Your task to perform on an android device: clear all cookies in the chrome app Image 0: 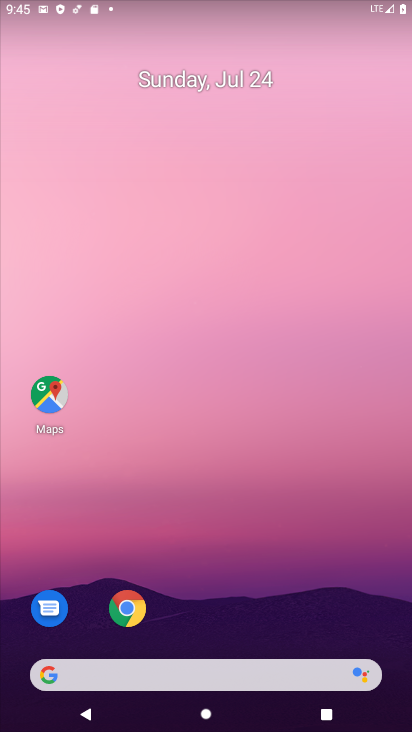
Step 0: click (126, 603)
Your task to perform on an android device: clear all cookies in the chrome app Image 1: 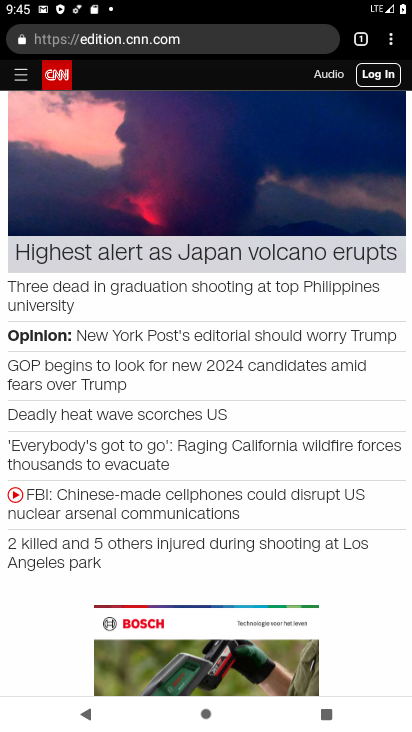
Step 1: click (390, 46)
Your task to perform on an android device: clear all cookies in the chrome app Image 2: 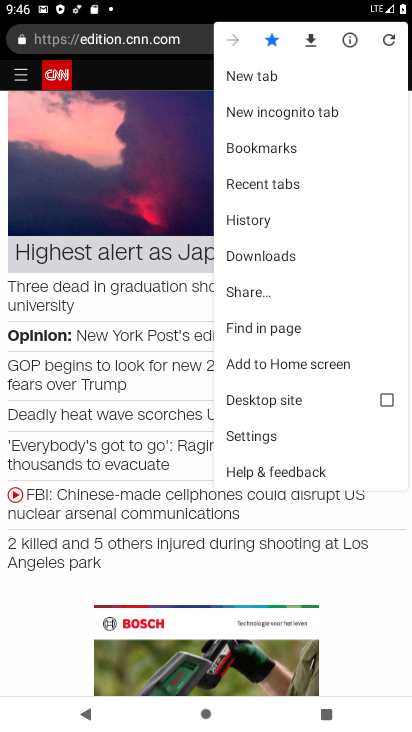
Step 2: click (282, 219)
Your task to perform on an android device: clear all cookies in the chrome app Image 3: 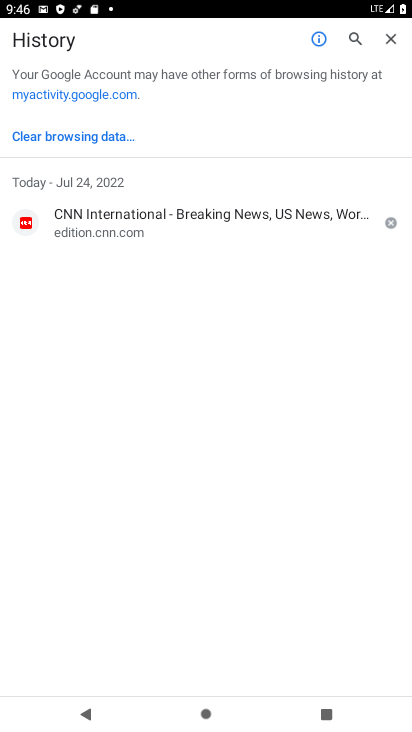
Step 3: click (100, 140)
Your task to perform on an android device: clear all cookies in the chrome app Image 4: 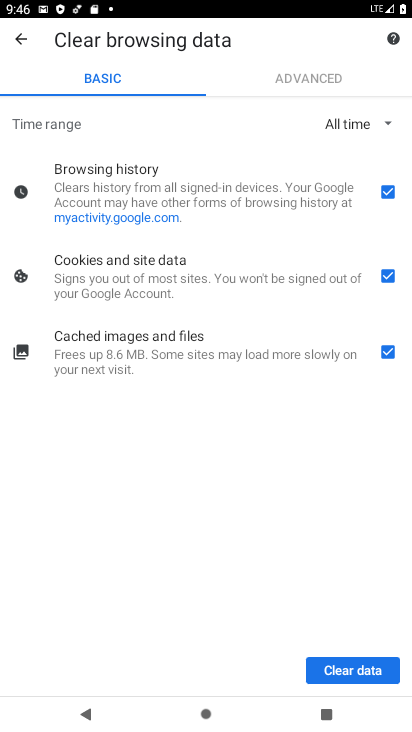
Step 4: click (387, 194)
Your task to perform on an android device: clear all cookies in the chrome app Image 5: 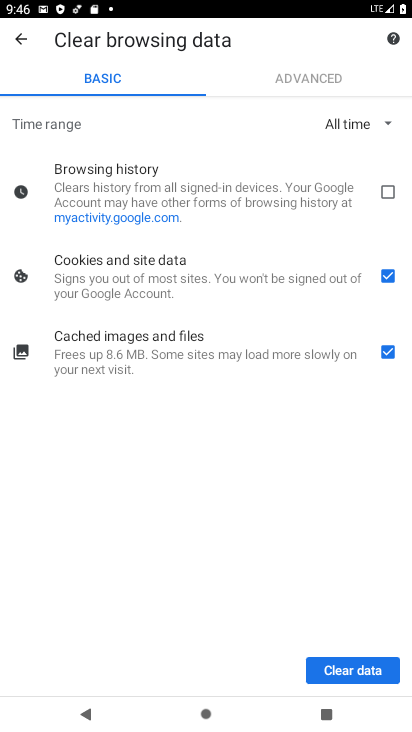
Step 5: click (390, 346)
Your task to perform on an android device: clear all cookies in the chrome app Image 6: 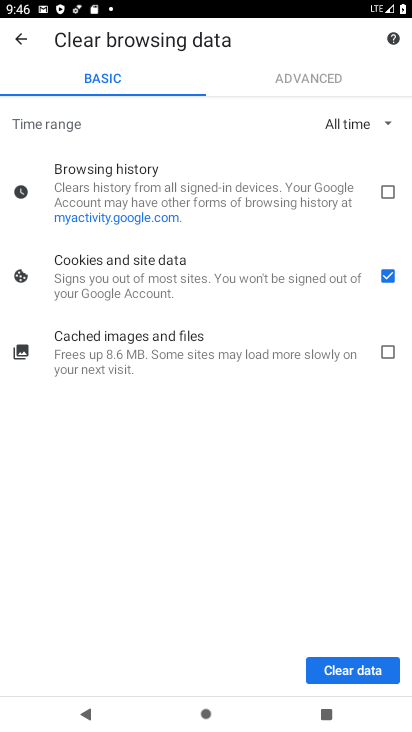
Step 6: click (353, 665)
Your task to perform on an android device: clear all cookies in the chrome app Image 7: 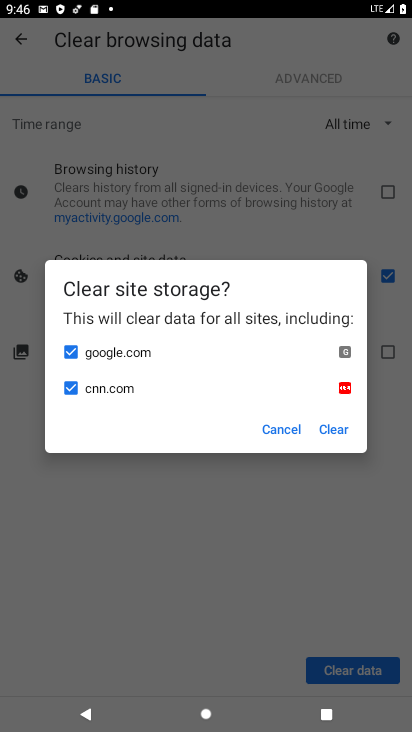
Step 7: task complete